Your task to perform on an android device: Add "asus zenbook" to the cart on target.com, then select checkout. Image 0: 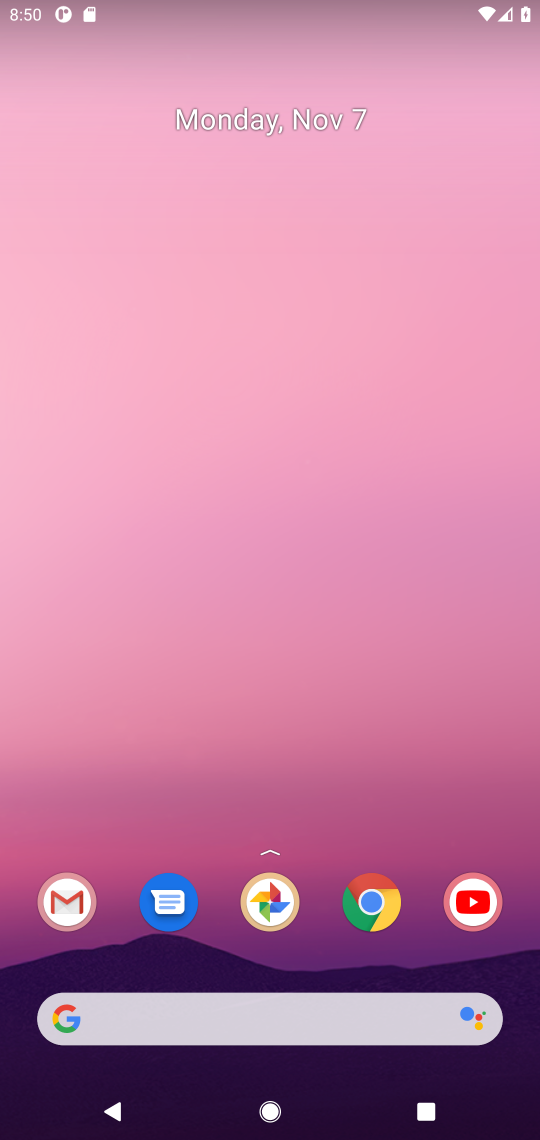
Step 0: click (364, 914)
Your task to perform on an android device: Add "asus zenbook" to the cart on target.com, then select checkout. Image 1: 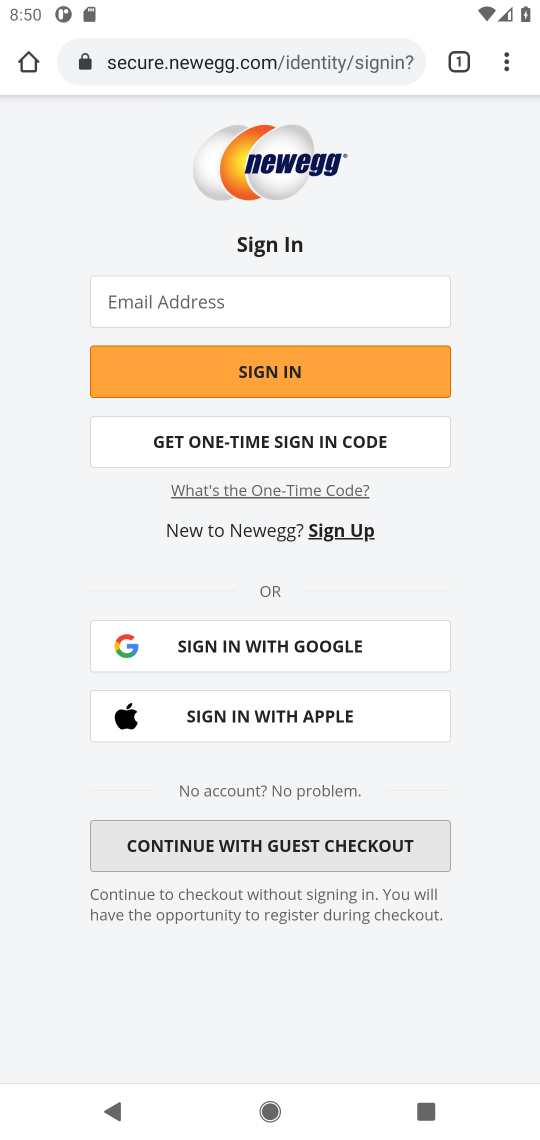
Step 1: click (180, 71)
Your task to perform on an android device: Add "asus zenbook" to the cart on target.com, then select checkout. Image 2: 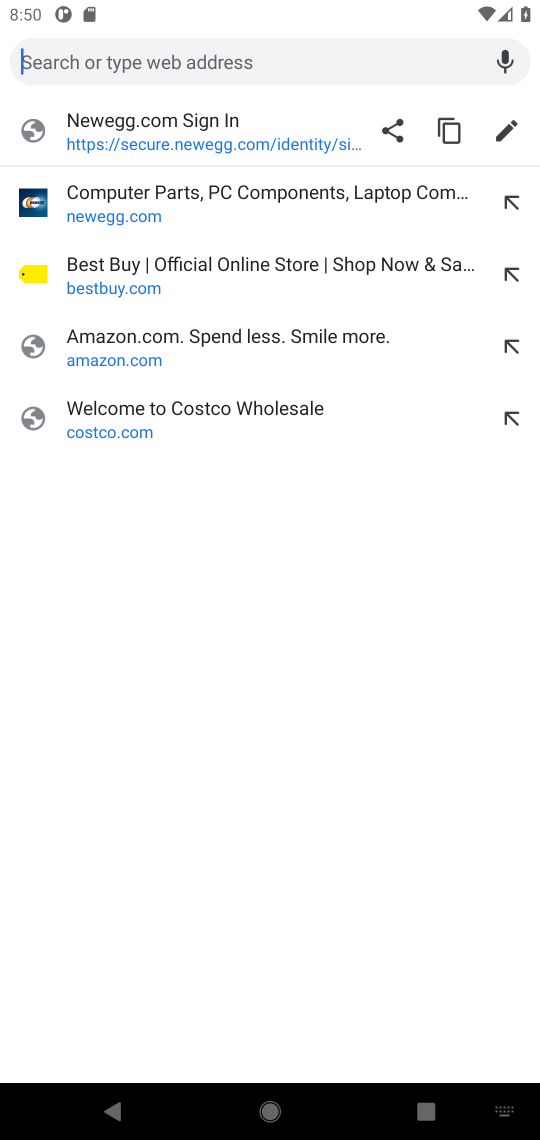
Step 2: type "target.com"
Your task to perform on an android device: Add "asus zenbook" to the cart on target.com, then select checkout. Image 3: 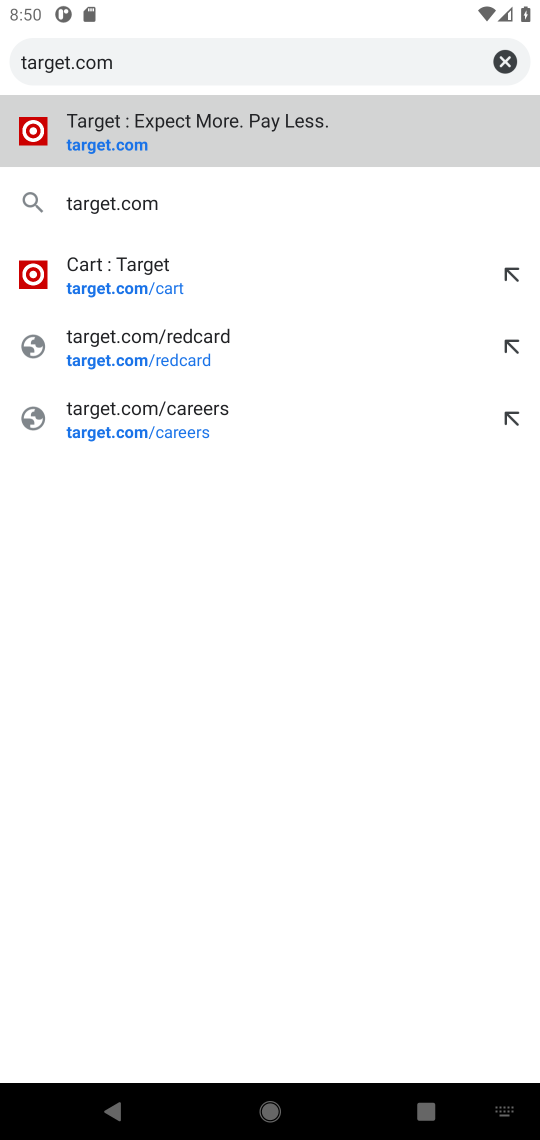
Step 3: click (96, 146)
Your task to perform on an android device: Add "asus zenbook" to the cart on target.com, then select checkout. Image 4: 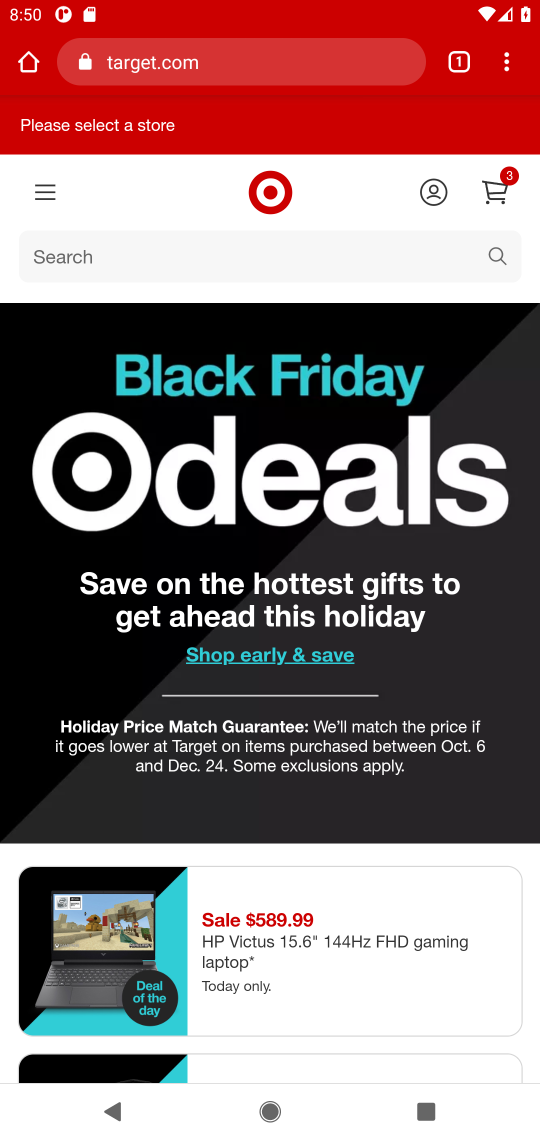
Step 4: click (499, 255)
Your task to perform on an android device: Add "asus zenbook" to the cart on target.com, then select checkout. Image 5: 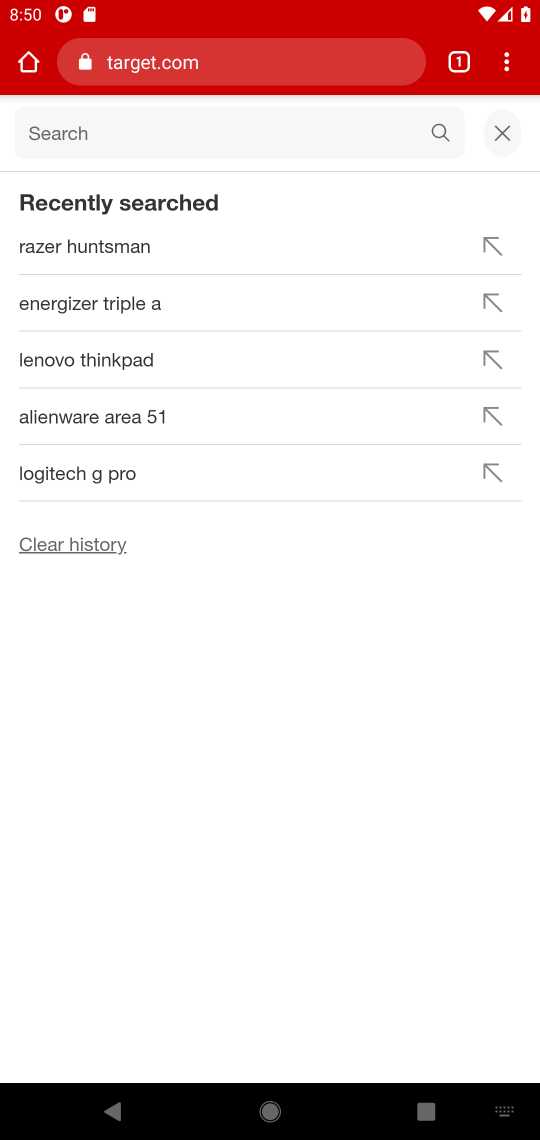
Step 5: click (198, 144)
Your task to perform on an android device: Add "asus zenbook" to the cart on target.com, then select checkout. Image 6: 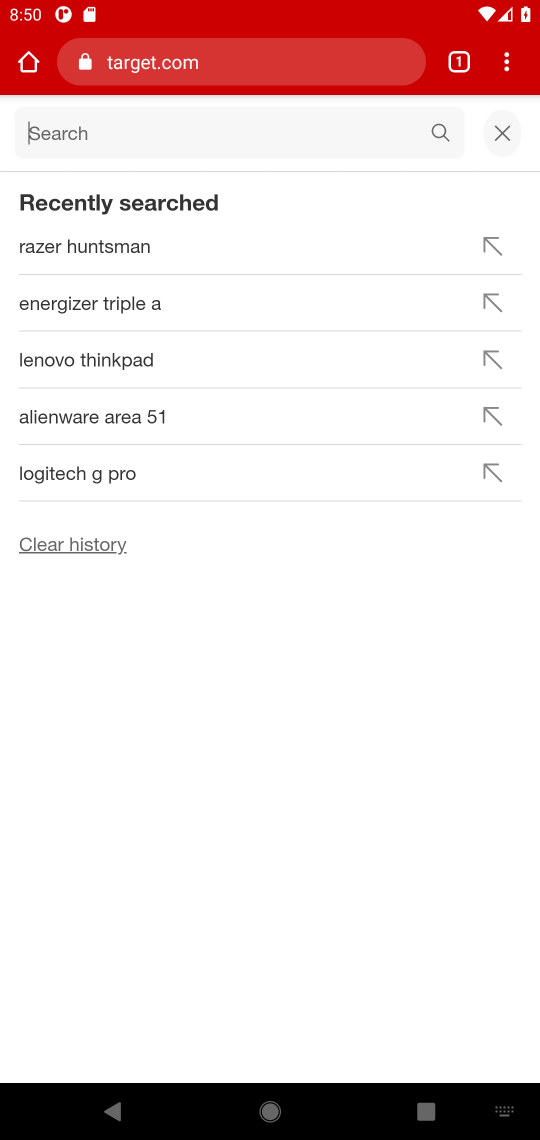
Step 6: type "asus zenbook"
Your task to perform on an android device: Add "asus zenbook" to the cart on target.com, then select checkout. Image 7: 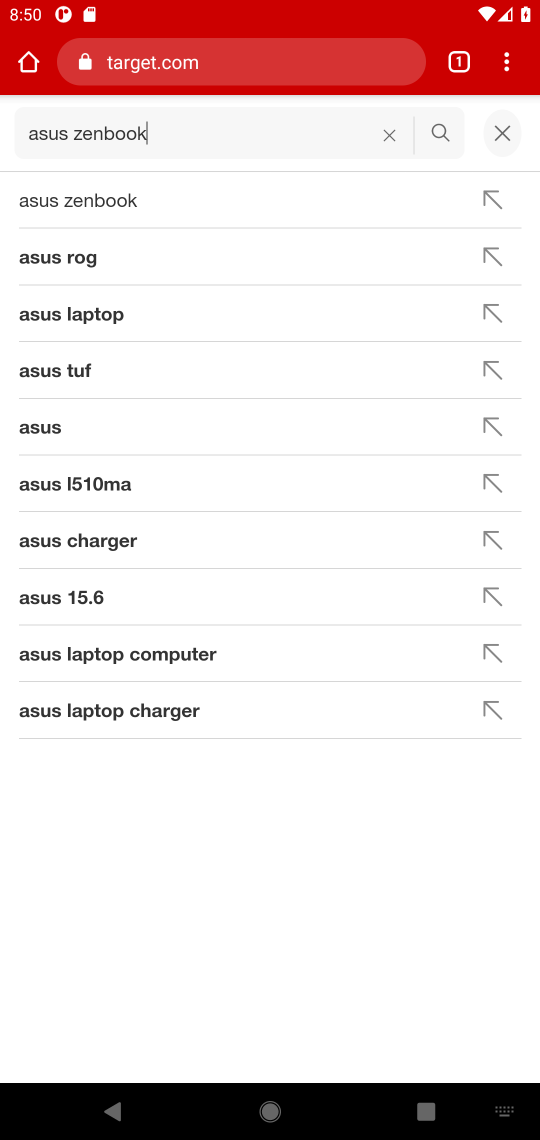
Step 7: click (98, 203)
Your task to perform on an android device: Add "asus zenbook" to the cart on target.com, then select checkout. Image 8: 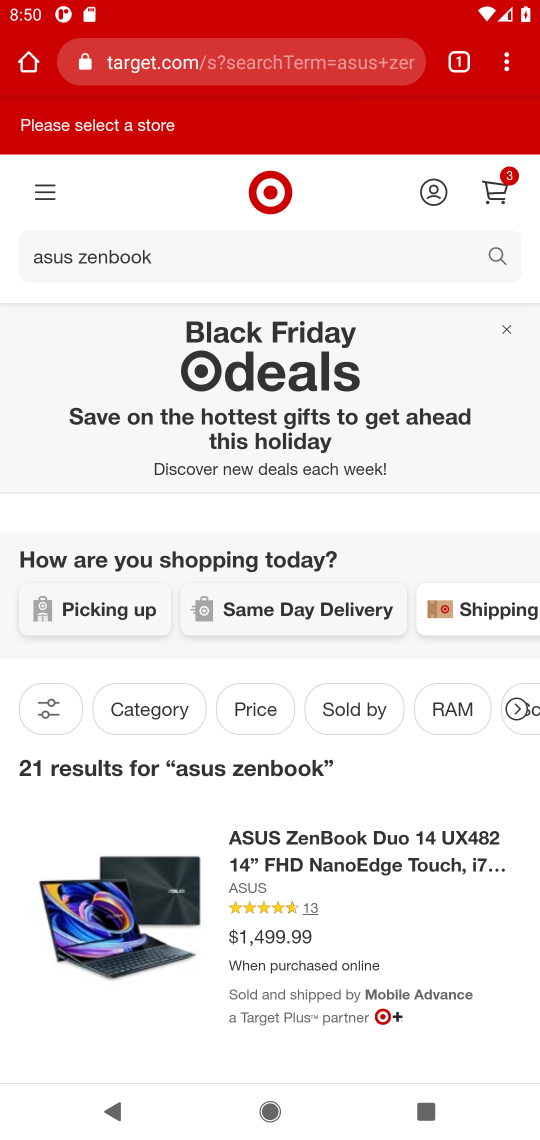
Step 8: click (137, 940)
Your task to perform on an android device: Add "asus zenbook" to the cart on target.com, then select checkout. Image 9: 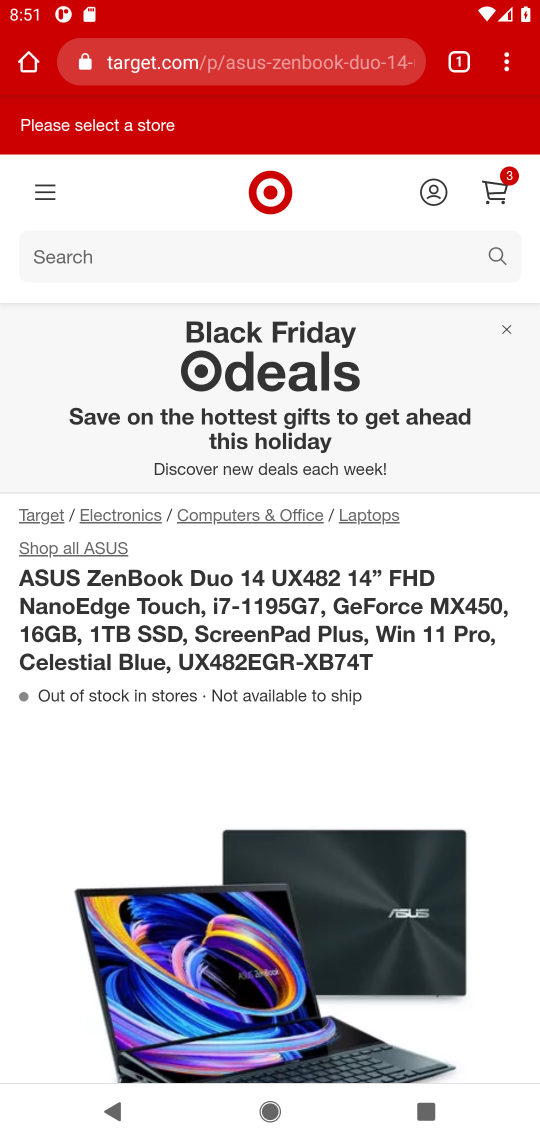
Step 9: drag from (188, 891) to (201, 195)
Your task to perform on an android device: Add "asus zenbook" to the cart on target.com, then select checkout. Image 10: 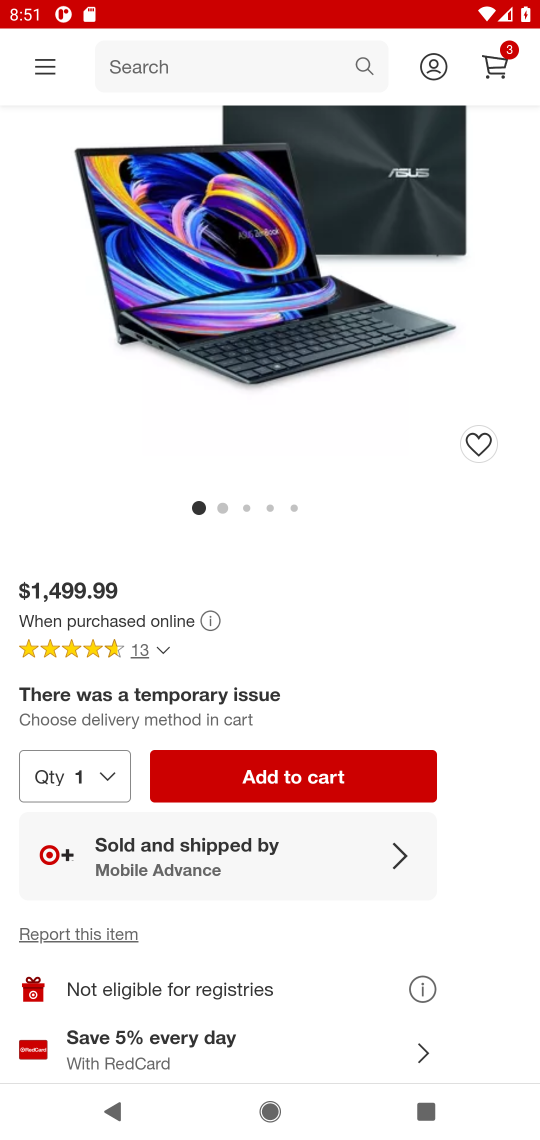
Step 10: click (271, 779)
Your task to perform on an android device: Add "asus zenbook" to the cart on target.com, then select checkout. Image 11: 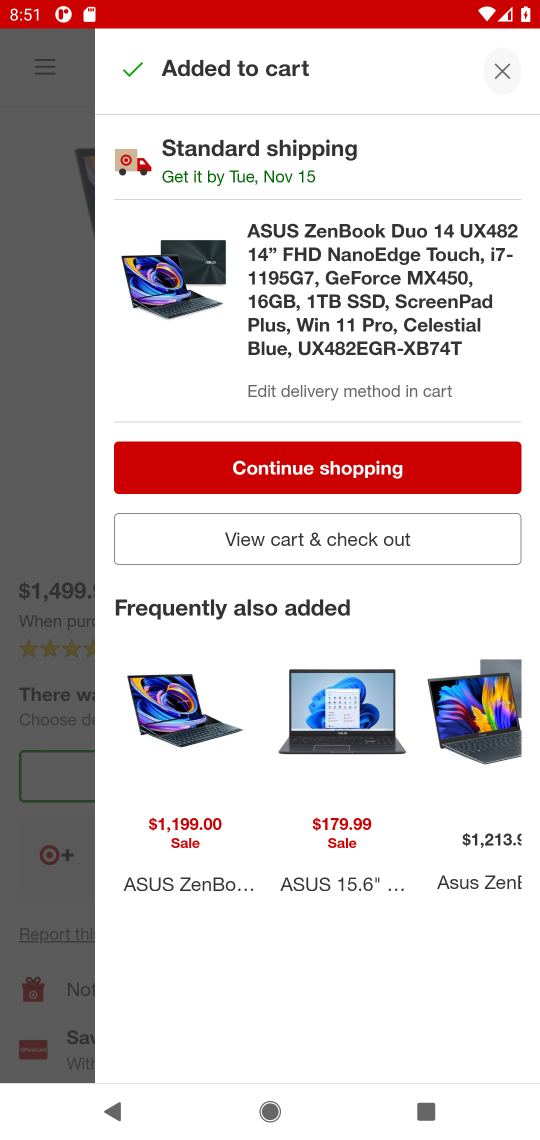
Step 11: click (272, 536)
Your task to perform on an android device: Add "asus zenbook" to the cart on target.com, then select checkout. Image 12: 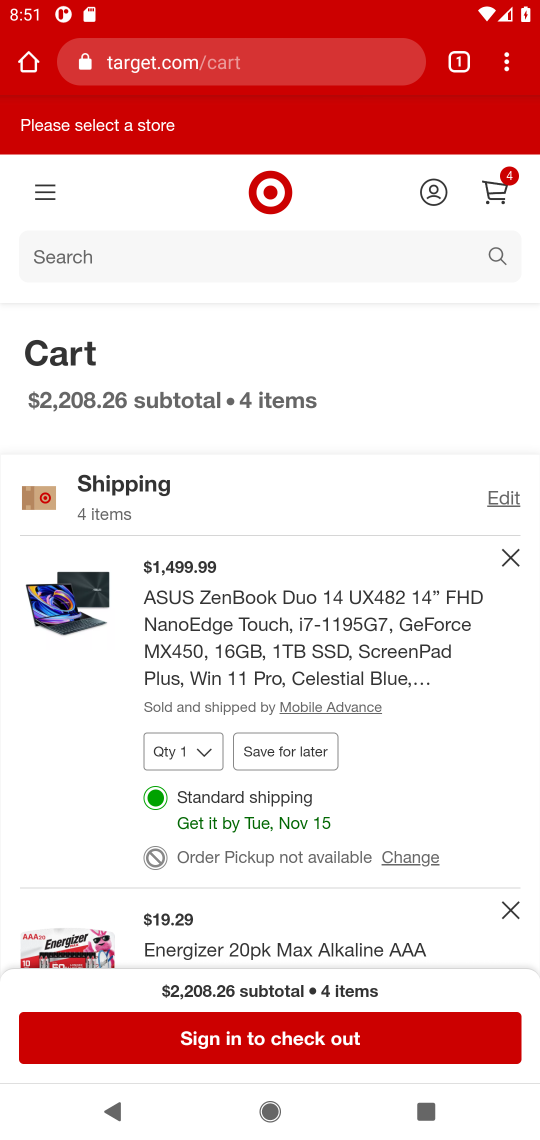
Step 12: click (229, 1037)
Your task to perform on an android device: Add "asus zenbook" to the cart on target.com, then select checkout. Image 13: 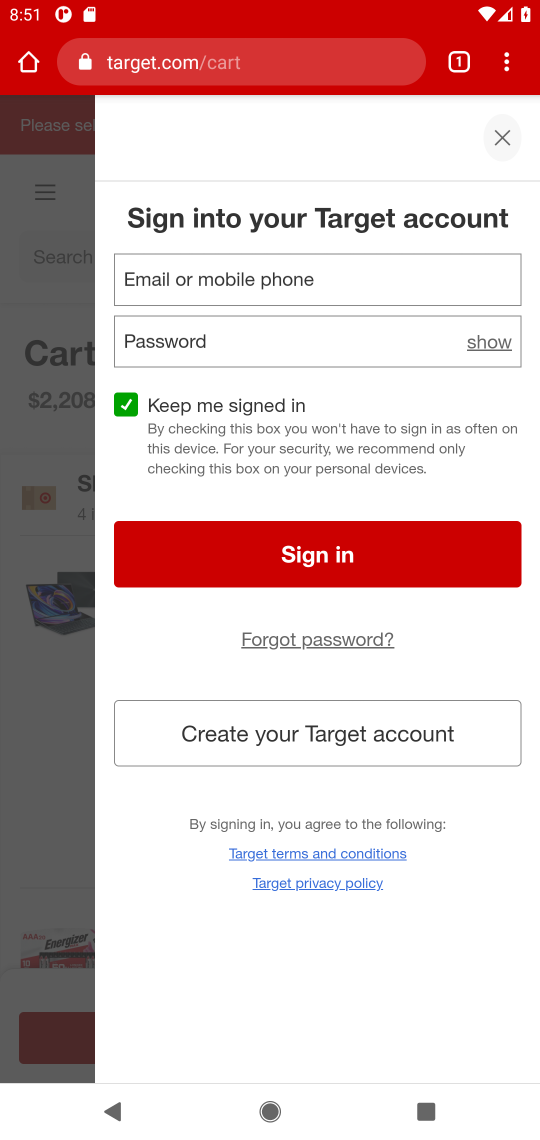
Step 13: task complete